Your task to perform on an android device: set an alarm Image 0: 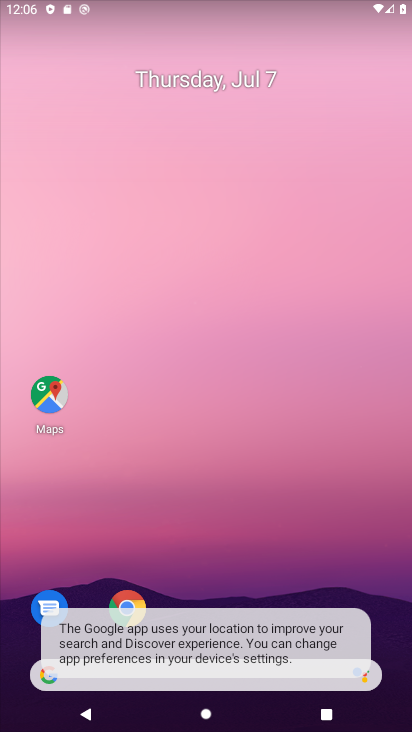
Step 0: drag from (193, 618) to (223, 61)
Your task to perform on an android device: set an alarm Image 1: 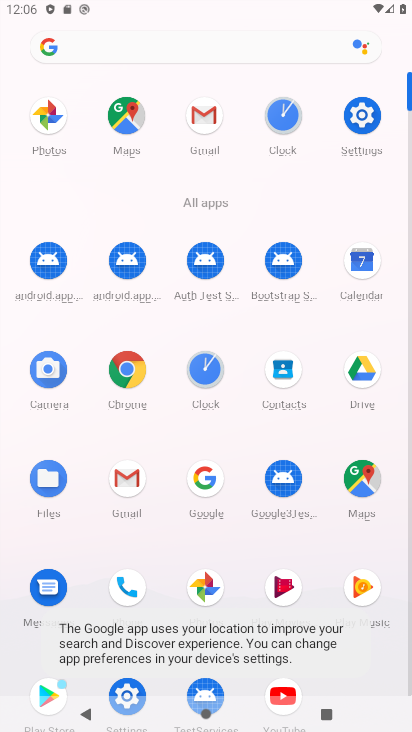
Step 1: click (208, 373)
Your task to perform on an android device: set an alarm Image 2: 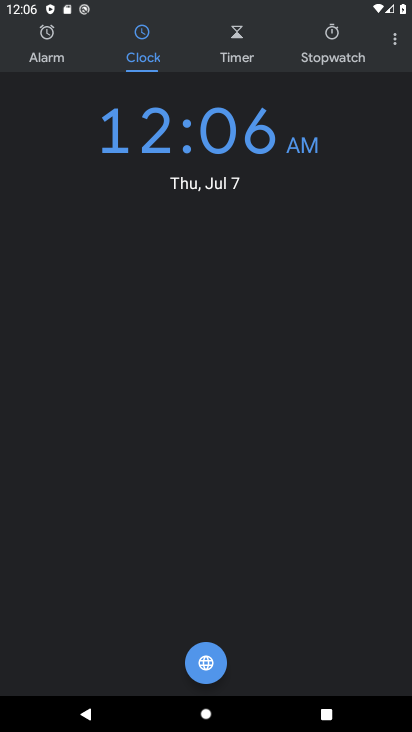
Step 2: click (55, 43)
Your task to perform on an android device: set an alarm Image 3: 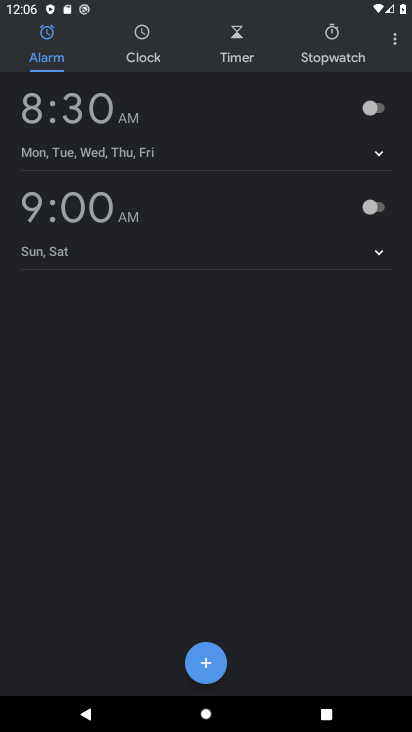
Step 3: click (381, 111)
Your task to perform on an android device: set an alarm Image 4: 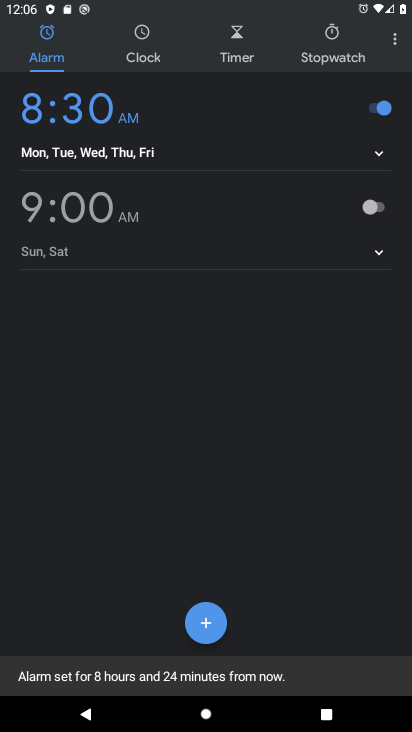
Step 4: task complete